Your task to perform on an android device: toggle show notifications on the lock screen Image 0: 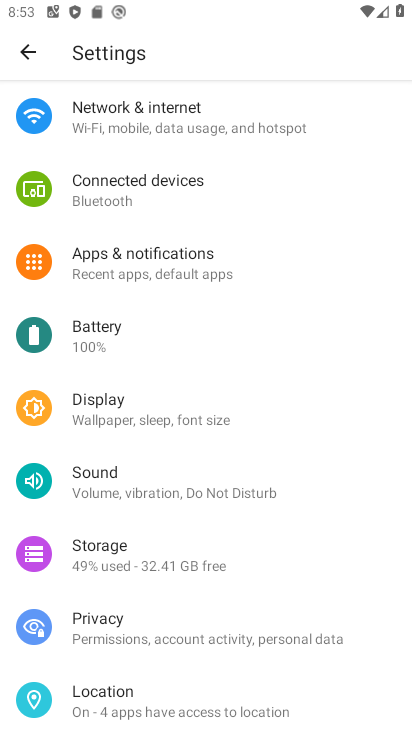
Step 0: click (139, 259)
Your task to perform on an android device: toggle show notifications on the lock screen Image 1: 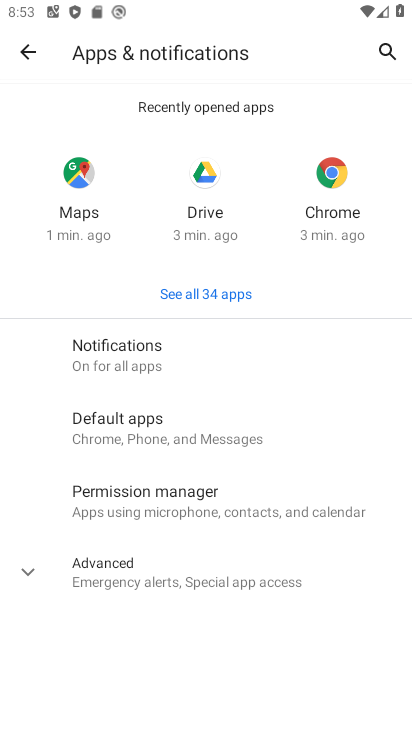
Step 1: click (131, 337)
Your task to perform on an android device: toggle show notifications on the lock screen Image 2: 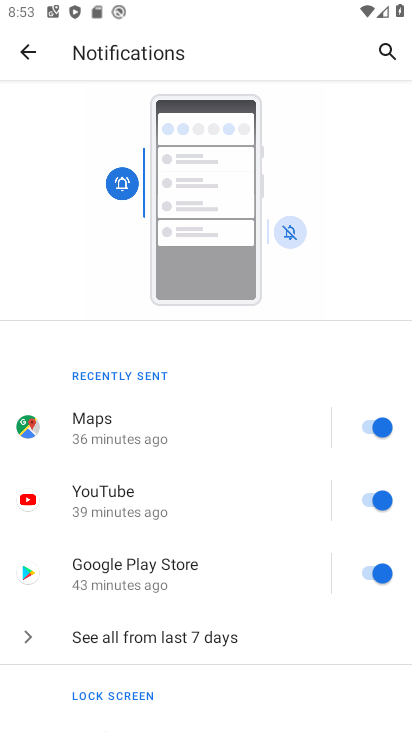
Step 2: drag from (283, 652) to (252, 343)
Your task to perform on an android device: toggle show notifications on the lock screen Image 3: 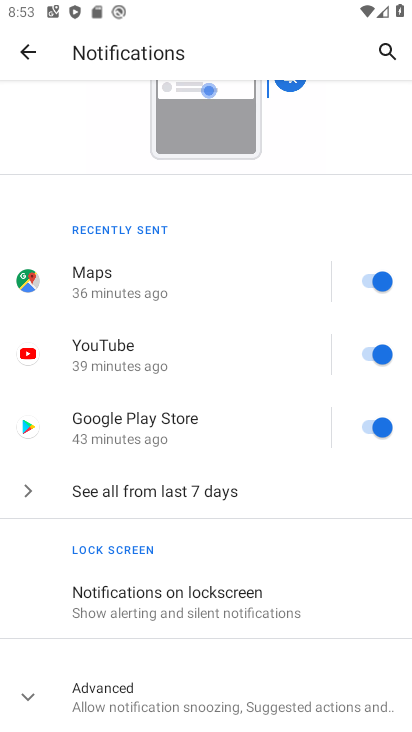
Step 3: click (125, 594)
Your task to perform on an android device: toggle show notifications on the lock screen Image 4: 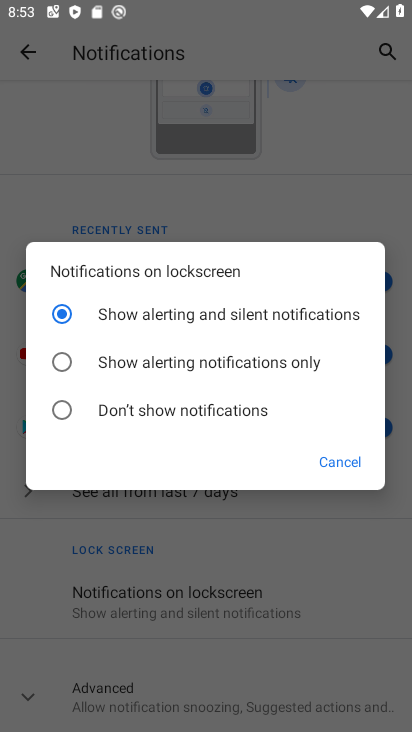
Step 4: click (63, 365)
Your task to perform on an android device: toggle show notifications on the lock screen Image 5: 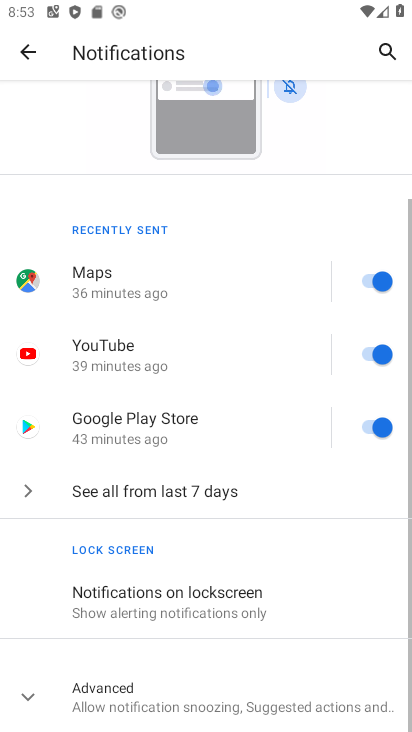
Step 5: task complete